Your task to perform on an android device: What's on my calendar tomorrow? Image 0: 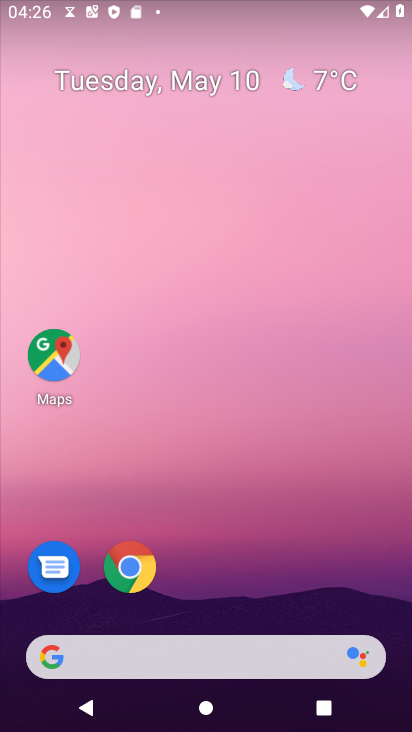
Step 0: drag from (231, 569) to (222, 10)
Your task to perform on an android device: What's on my calendar tomorrow? Image 1: 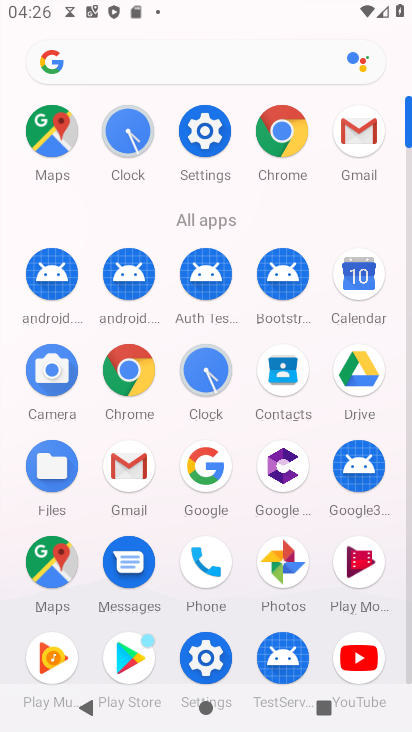
Step 1: click (363, 277)
Your task to perform on an android device: What's on my calendar tomorrow? Image 2: 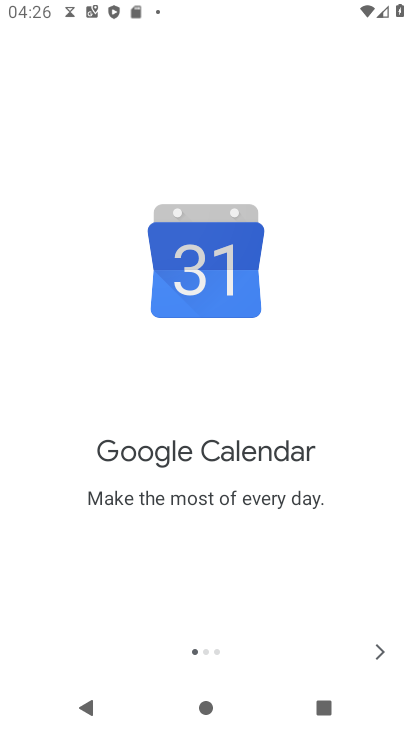
Step 2: click (377, 645)
Your task to perform on an android device: What's on my calendar tomorrow? Image 3: 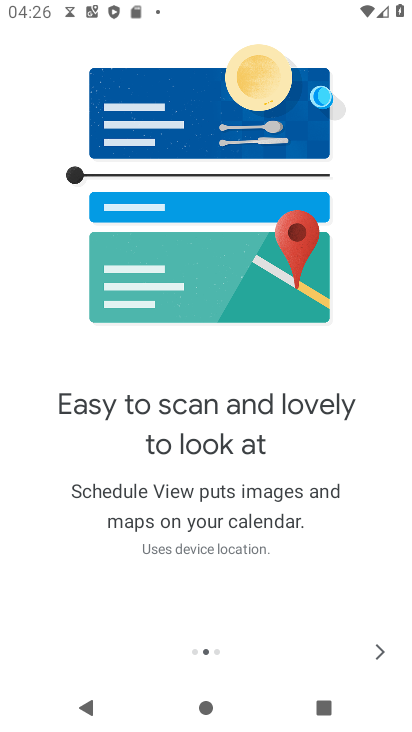
Step 3: click (377, 645)
Your task to perform on an android device: What's on my calendar tomorrow? Image 4: 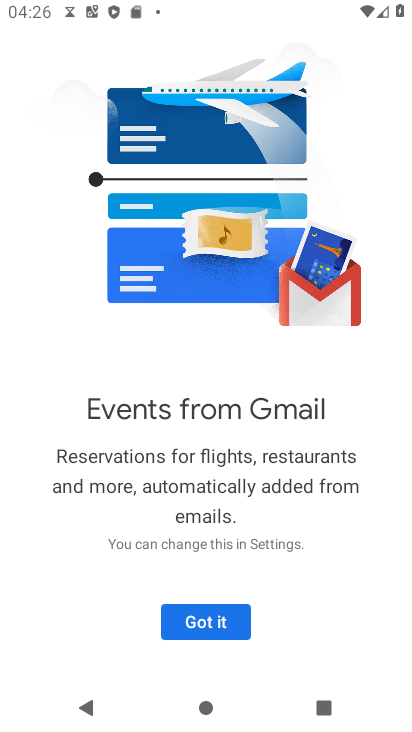
Step 4: click (192, 626)
Your task to perform on an android device: What's on my calendar tomorrow? Image 5: 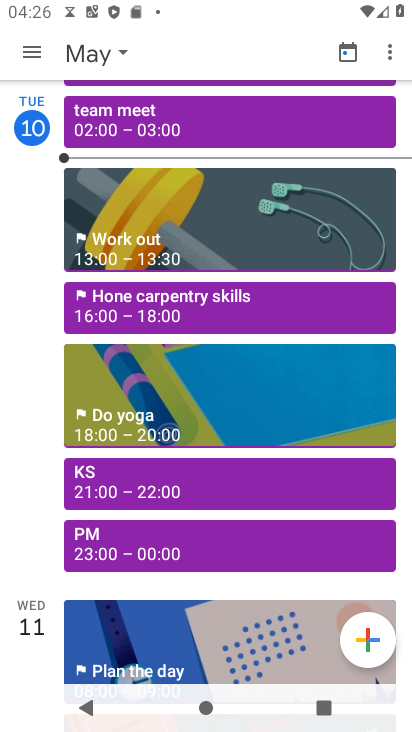
Step 5: click (125, 53)
Your task to perform on an android device: What's on my calendar tomorrow? Image 6: 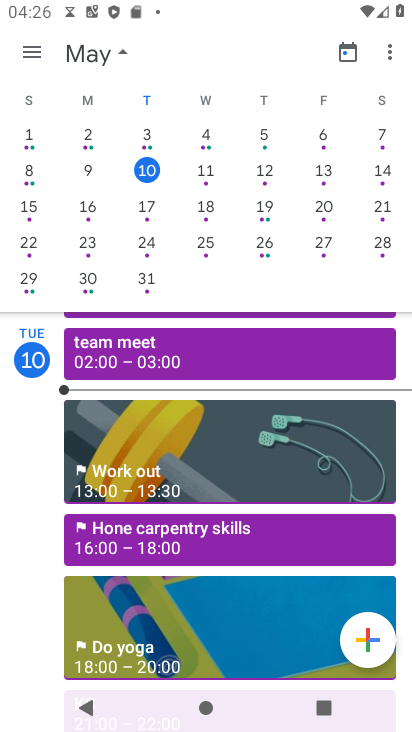
Step 6: click (205, 177)
Your task to perform on an android device: What's on my calendar tomorrow? Image 7: 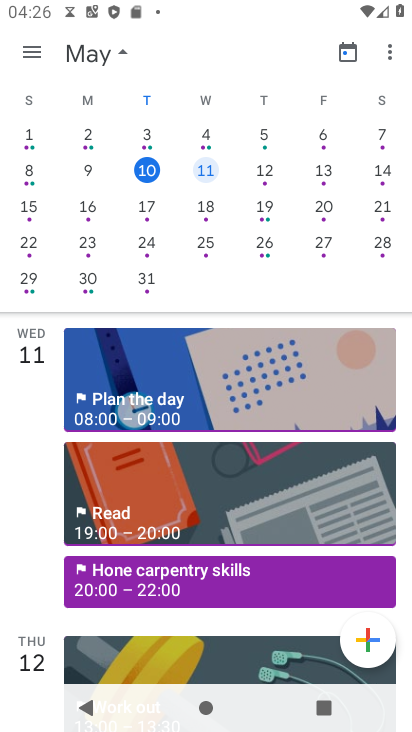
Step 7: task complete